Your task to perform on an android device: turn on bluetooth scan Image 0: 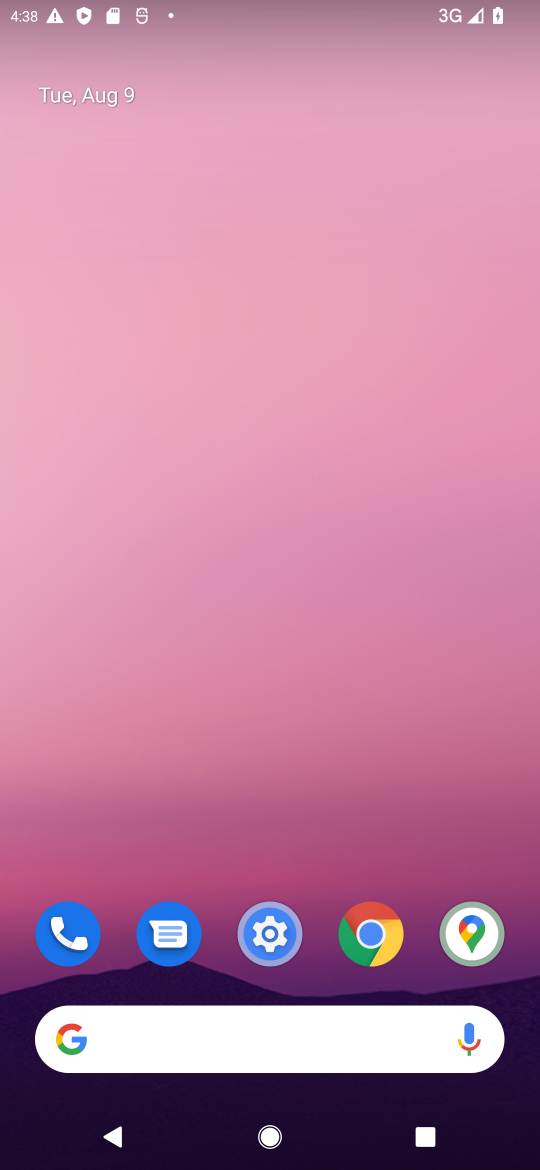
Step 0: click (283, 927)
Your task to perform on an android device: turn on bluetooth scan Image 1: 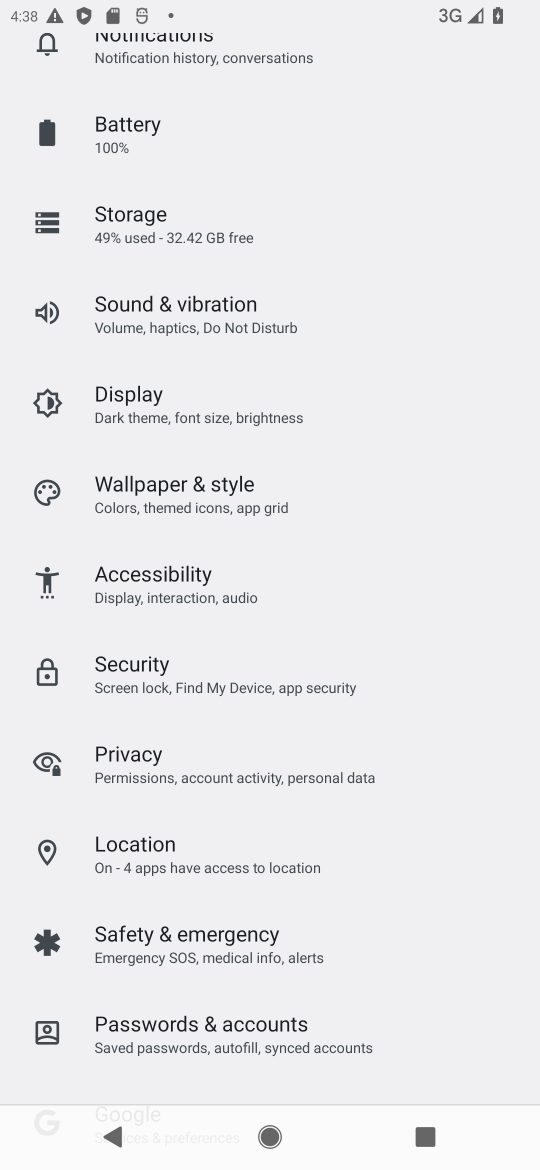
Step 1: click (214, 862)
Your task to perform on an android device: turn on bluetooth scan Image 2: 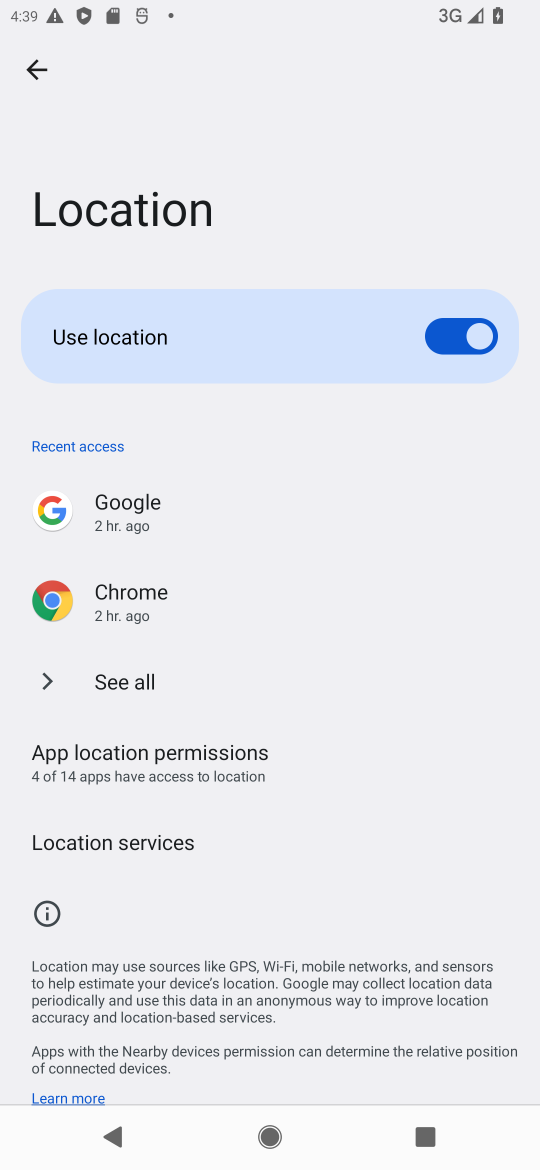
Step 2: task complete